Your task to perform on an android device: Open battery settings Image 0: 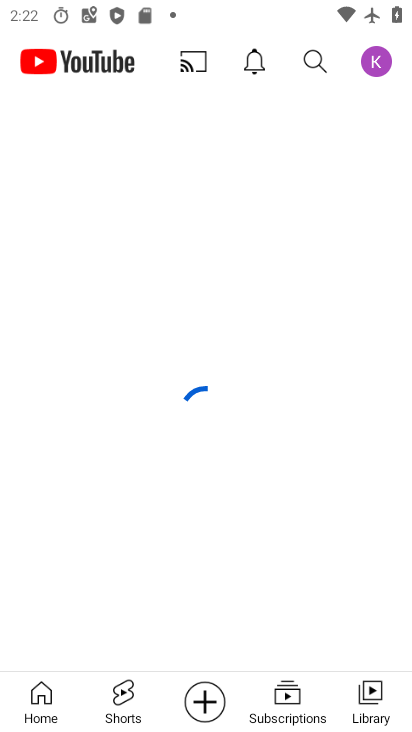
Step 0: press home button
Your task to perform on an android device: Open battery settings Image 1: 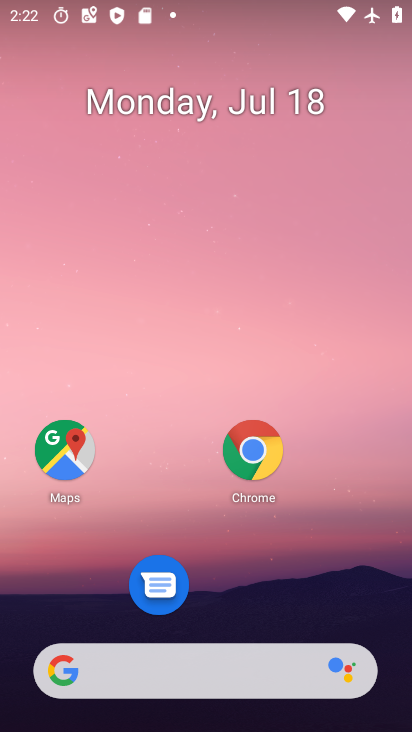
Step 1: press home button
Your task to perform on an android device: Open battery settings Image 2: 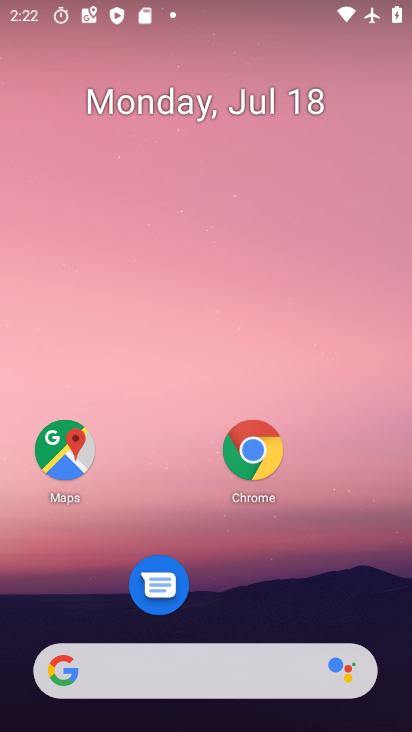
Step 2: drag from (185, 653) to (336, 58)
Your task to perform on an android device: Open battery settings Image 3: 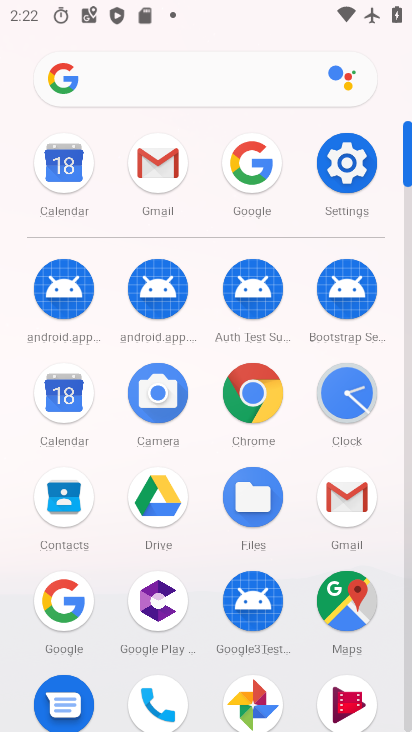
Step 3: click (347, 162)
Your task to perform on an android device: Open battery settings Image 4: 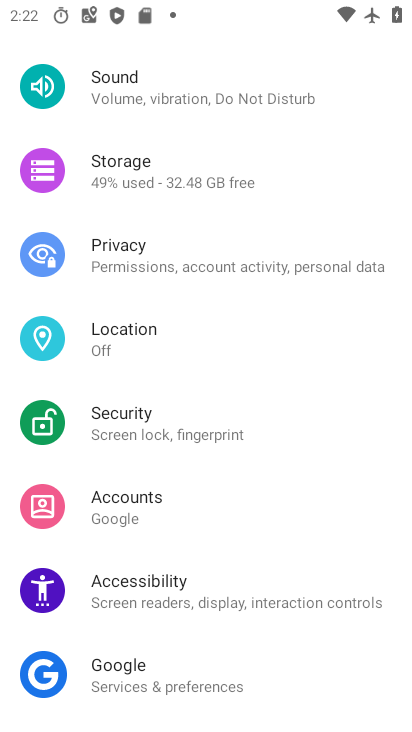
Step 4: drag from (273, 161) to (260, 573)
Your task to perform on an android device: Open battery settings Image 5: 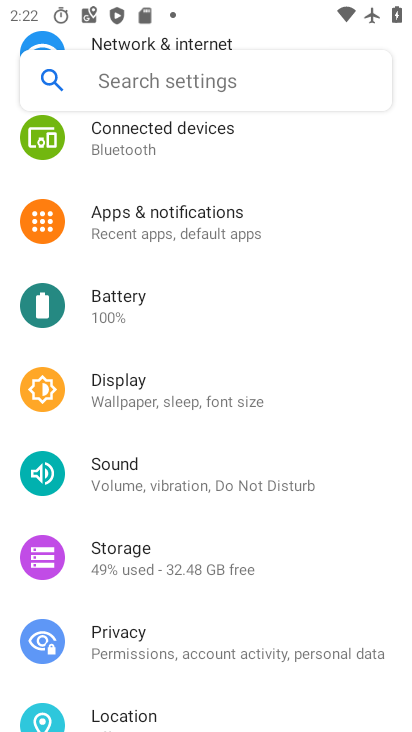
Step 5: click (133, 306)
Your task to perform on an android device: Open battery settings Image 6: 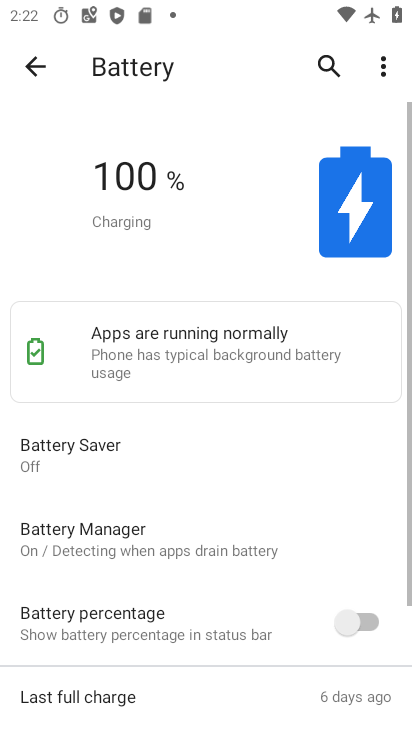
Step 6: task complete